Your task to perform on an android device: Go to sound settings Image 0: 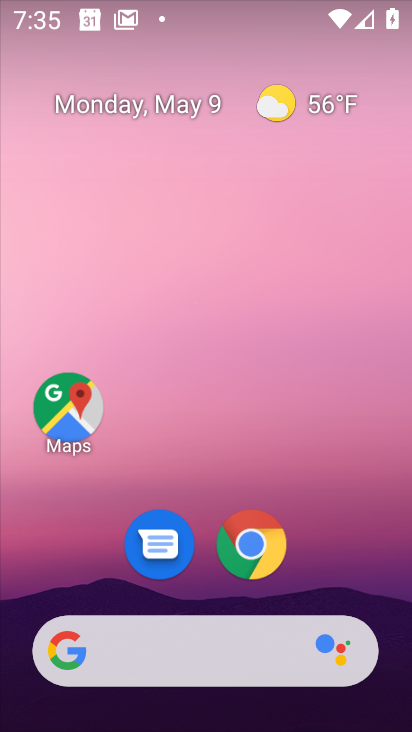
Step 0: drag from (318, 520) to (235, 108)
Your task to perform on an android device: Go to sound settings Image 1: 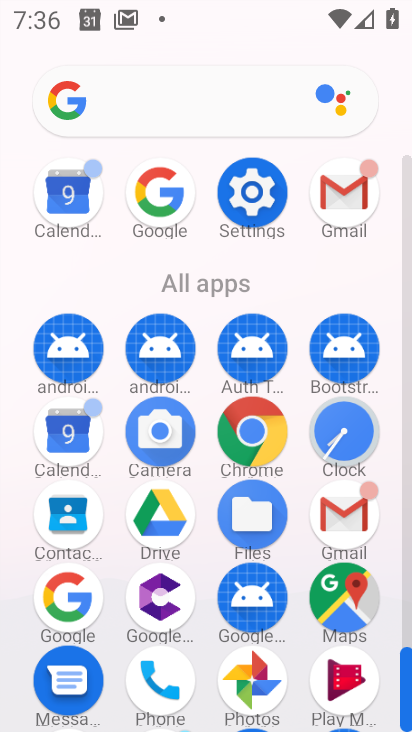
Step 1: click (252, 194)
Your task to perform on an android device: Go to sound settings Image 2: 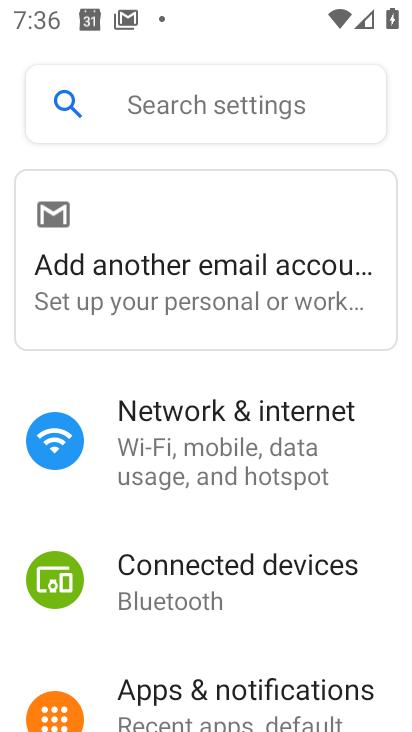
Step 2: drag from (187, 643) to (239, 476)
Your task to perform on an android device: Go to sound settings Image 3: 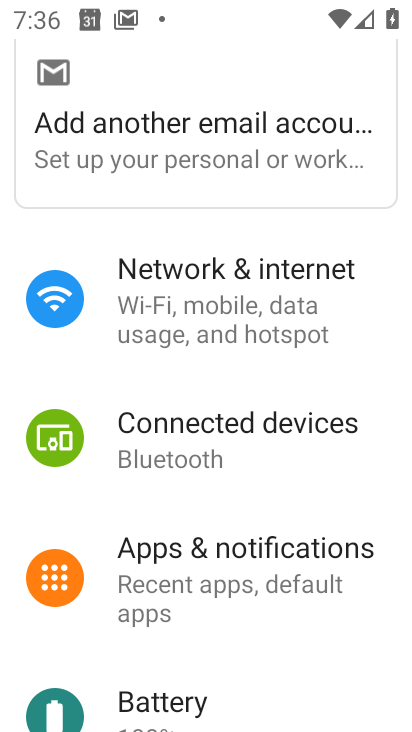
Step 3: drag from (198, 629) to (272, 489)
Your task to perform on an android device: Go to sound settings Image 4: 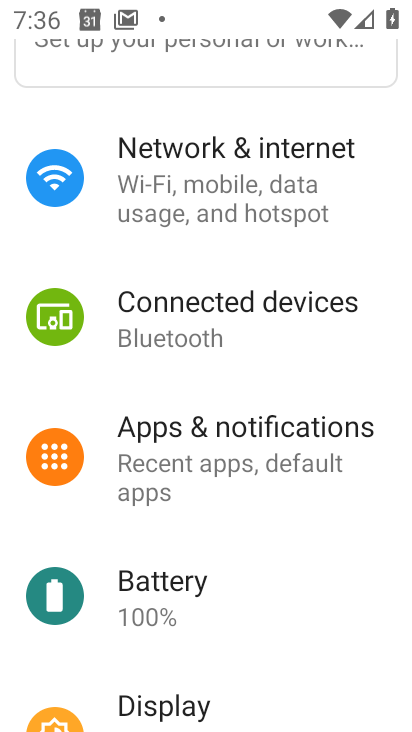
Step 4: drag from (203, 643) to (272, 464)
Your task to perform on an android device: Go to sound settings Image 5: 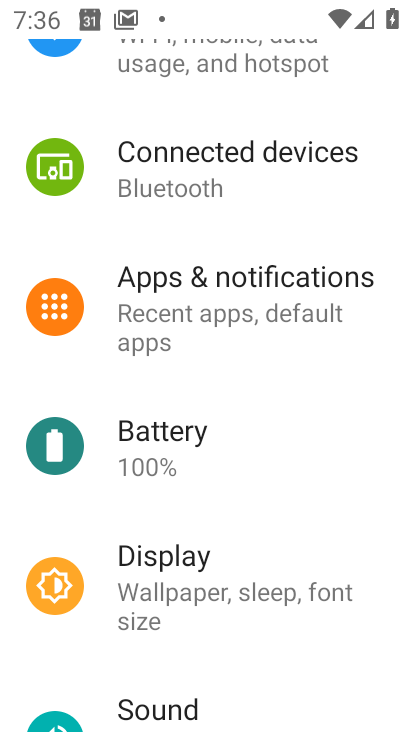
Step 5: drag from (179, 634) to (240, 490)
Your task to perform on an android device: Go to sound settings Image 6: 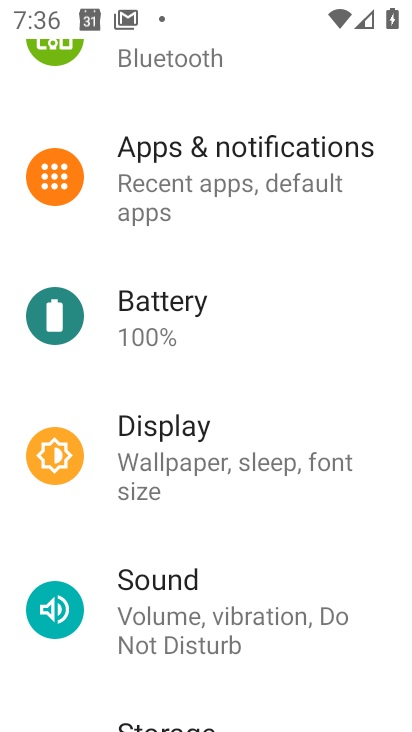
Step 6: click (154, 589)
Your task to perform on an android device: Go to sound settings Image 7: 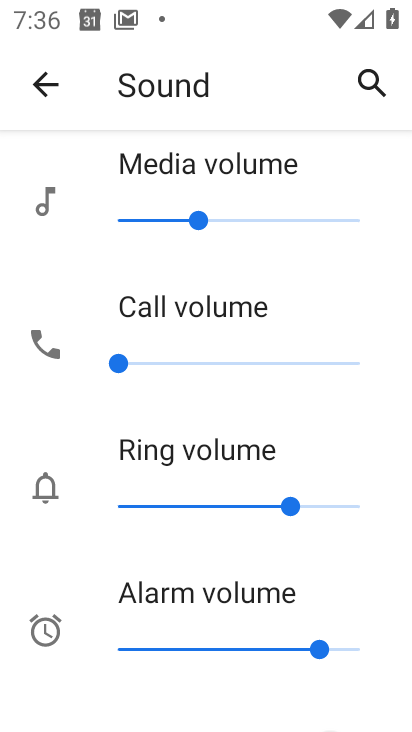
Step 7: task complete